Your task to perform on an android device: Open Google Maps and go to "Timeline" Image 0: 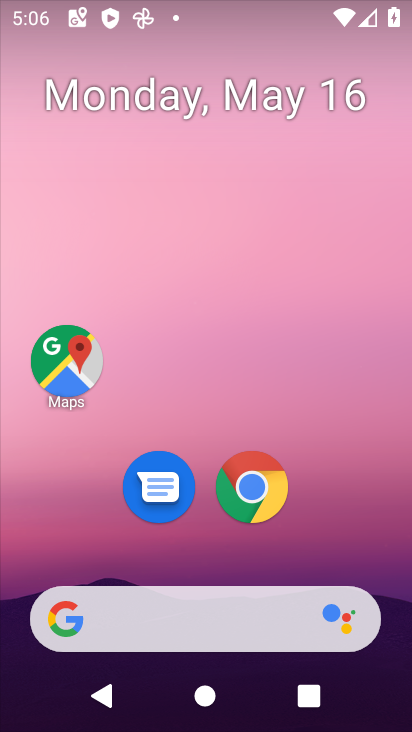
Step 0: click (69, 364)
Your task to perform on an android device: Open Google Maps and go to "Timeline" Image 1: 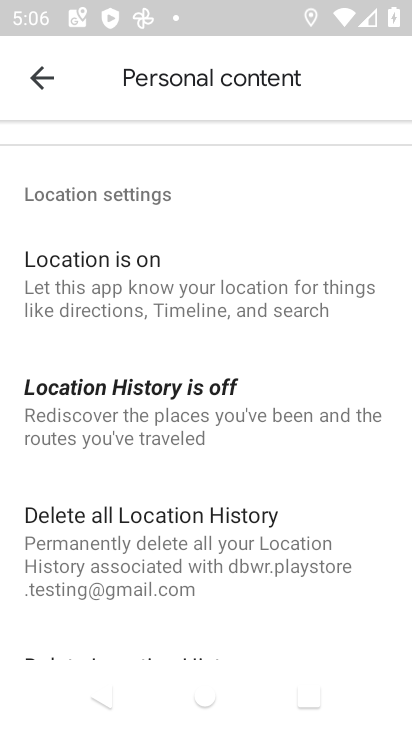
Step 1: press back button
Your task to perform on an android device: Open Google Maps and go to "Timeline" Image 2: 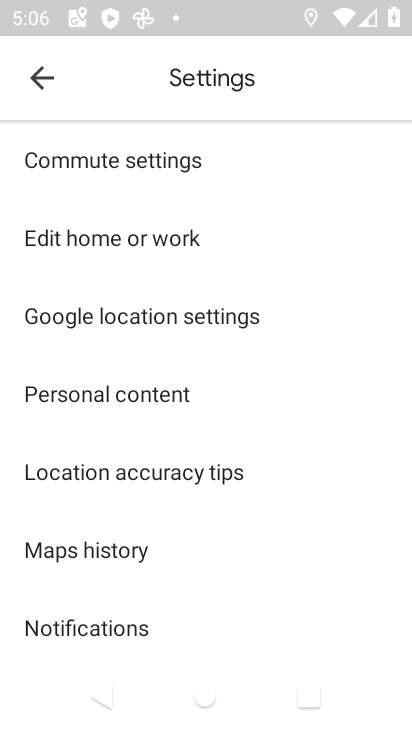
Step 2: press back button
Your task to perform on an android device: Open Google Maps and go to "Timeline" Image 3: 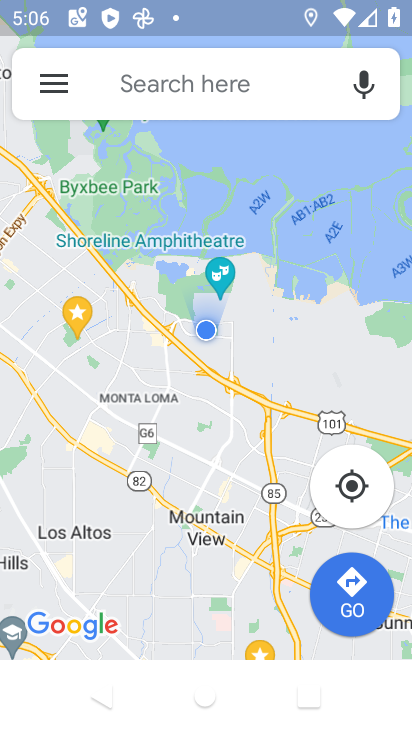
Step 3: click (51, 79)
Your task to perform on an android device: Open Google Maps and go to "Timeline" Image 4: 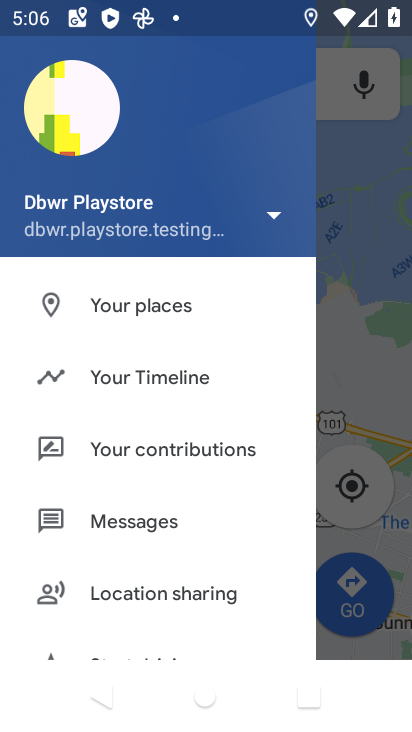
Step 4: click (146, 377)
Your task to perform on an android device: Open Google Maps and go to "Timeline" Image 5: 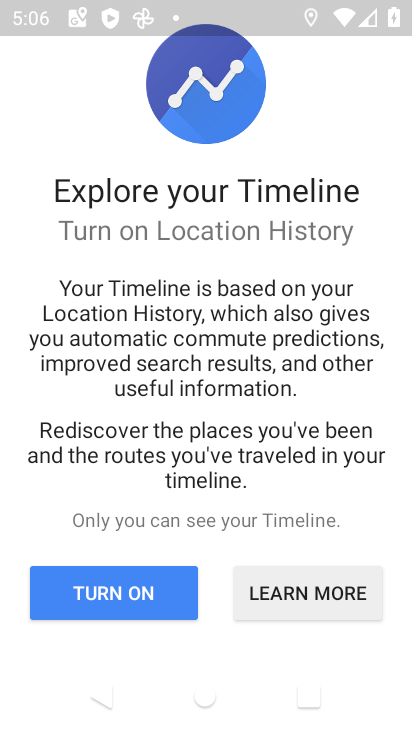
Step 5: drag from (229, 532) to (224, 135)
Your task to perform on an android device: Open Google Maps and go to "Timeline" Image 6: 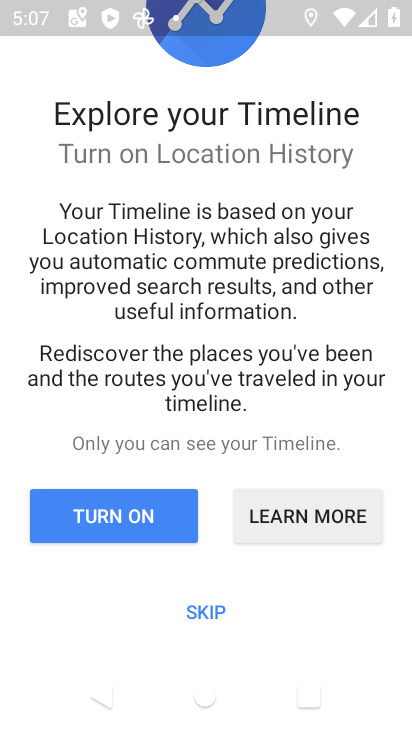
Step 6: click (203, 615)
Your task to perform on an android device: Open Google Maps and go to "Timeline" Image 7: 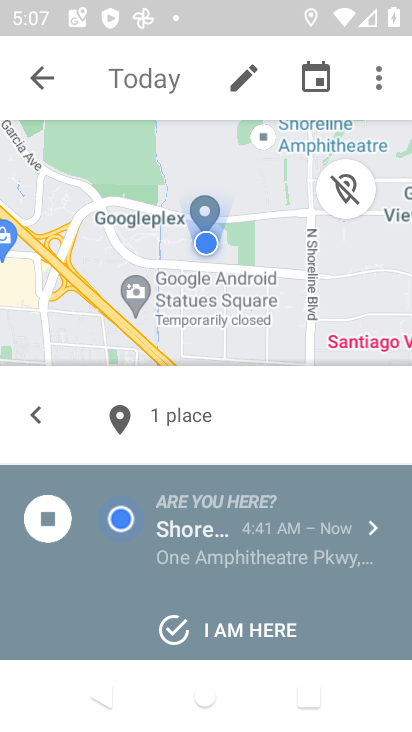
Step 7: task complete